Your task to perform on an android device: install app "Etsy: Buy & Sell Unique Items" Image 0: 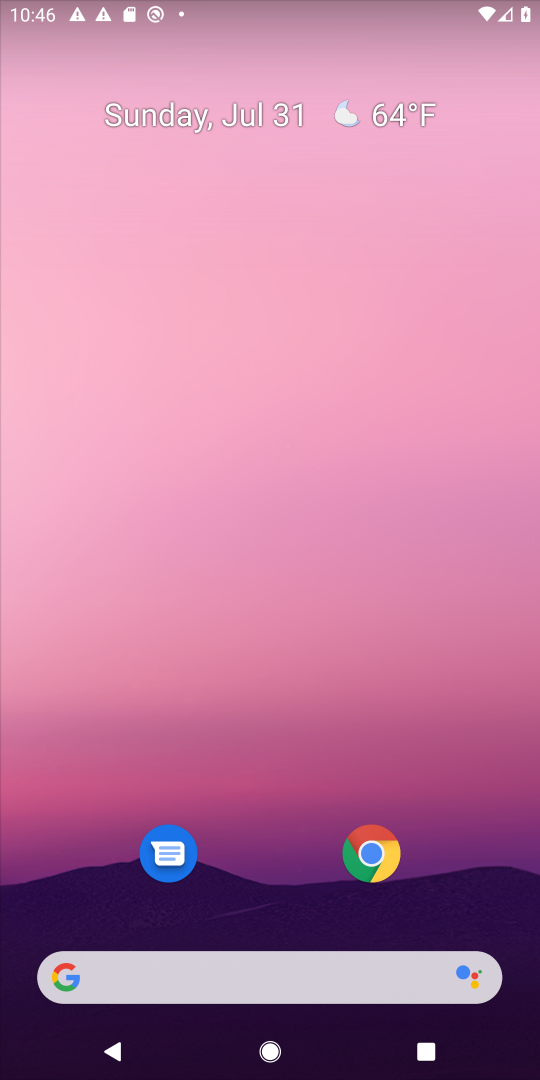
Step 0: drag from (299, 1068) to (315, 130)
Your task to perform on an android device: install app "Etsy: Buy & Sell Unique Items" Image 1: 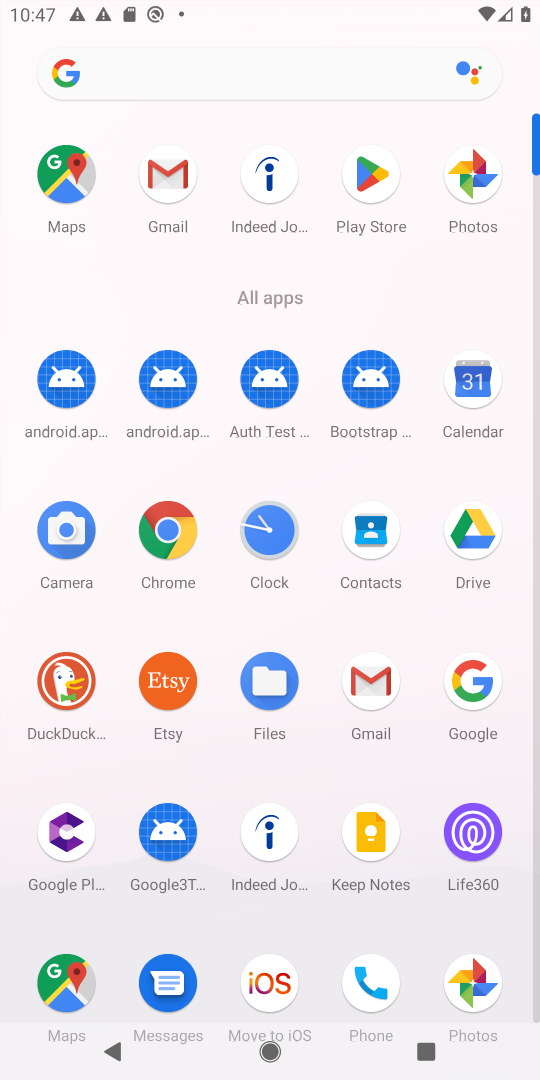
Step 1: drag from (195, 882) to (185, 532)
Your task to perform on an android device: install app "Etsy: Buy & Sell Unique Items" Image 2: 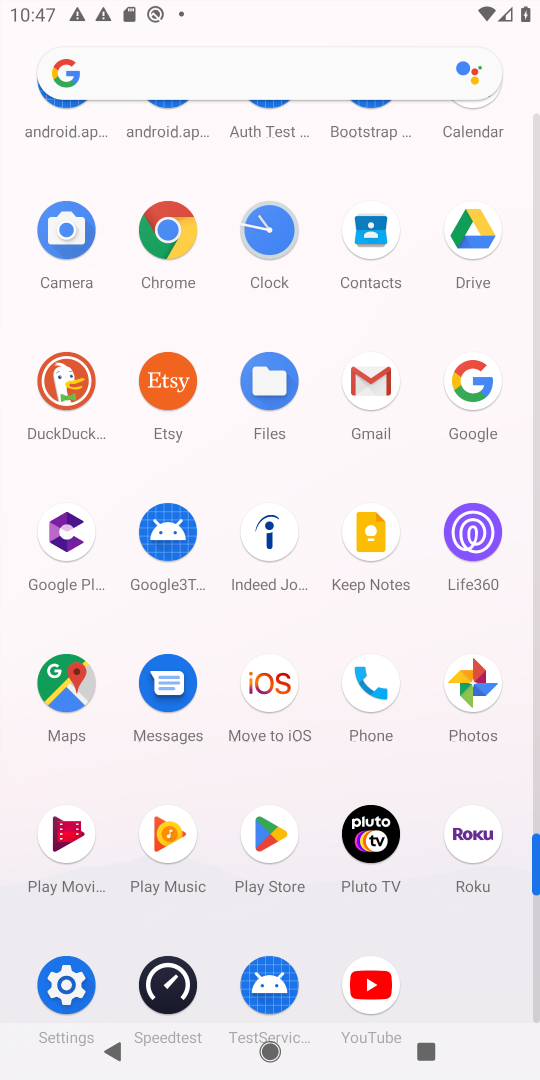
Step 2: drag from (299, 325) to (352, 725)
Your task to perform on an android device: install app "Etsy: Buy & Sell Unique Items" Image 3: 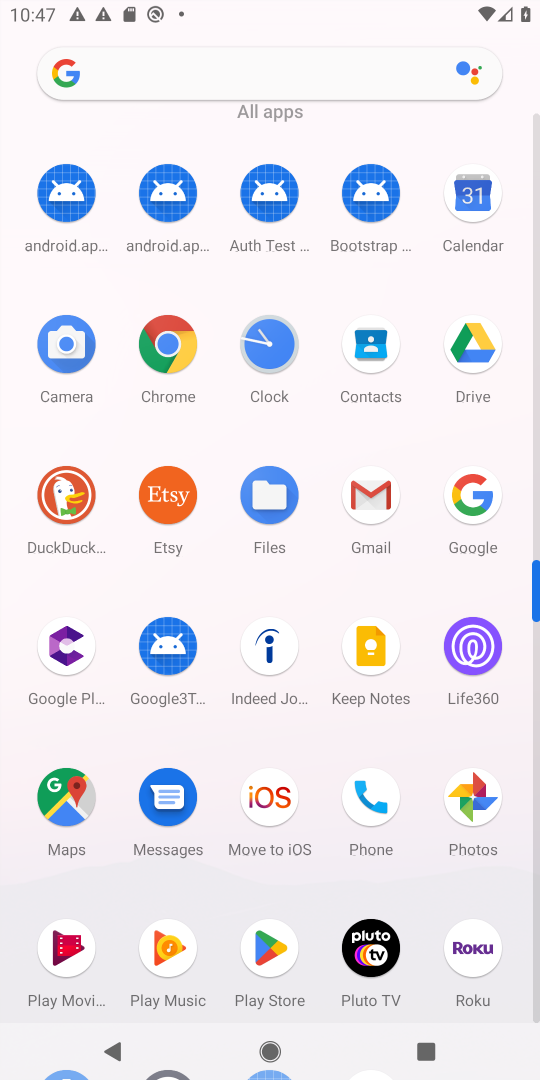
Step 3: click (266, 947)
Your task to perform on an android device: install app "Etsy: Buy & Sell Unique Items" Image 4: 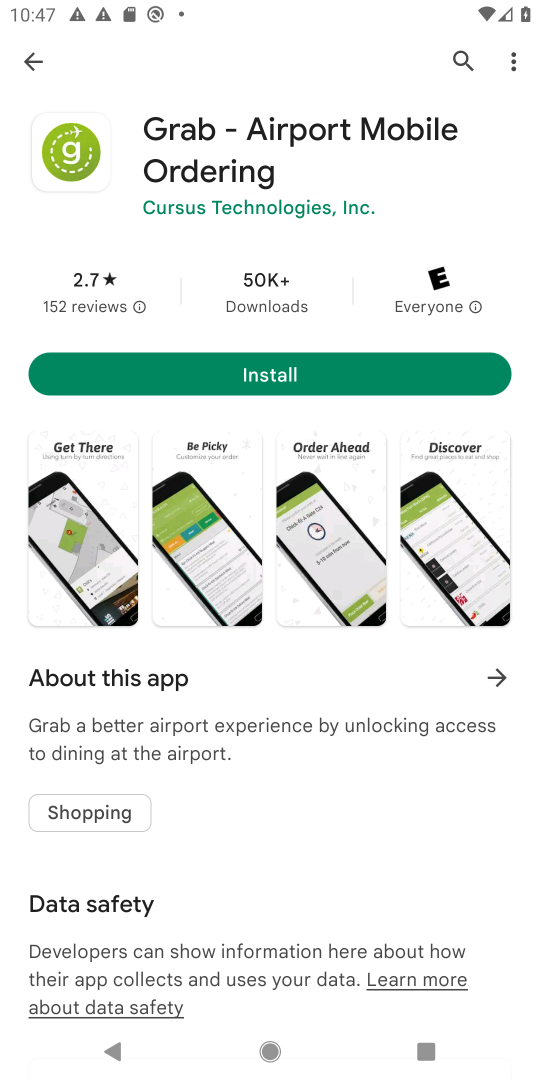
Step 4: click (460, 48)
Your task to perform on an android device: install app "Etsy: Buy & Sell Unique Items" Image 5: 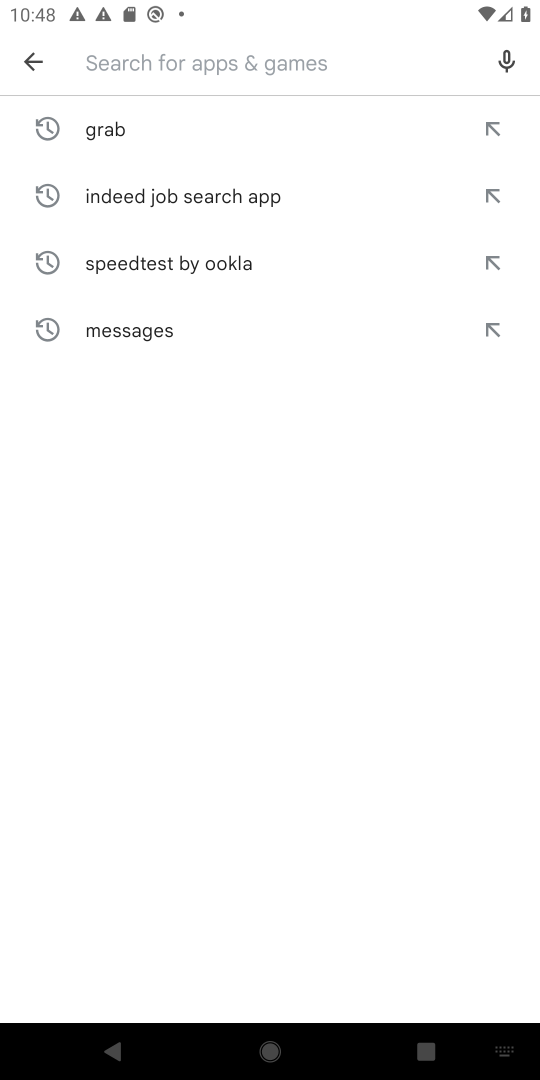
Step 5: type "Etsy: Buy & Sell Unique Items"
Your task to perform on an android device: install app "Etsy: Buy & Sell Unique Items" Image 6: 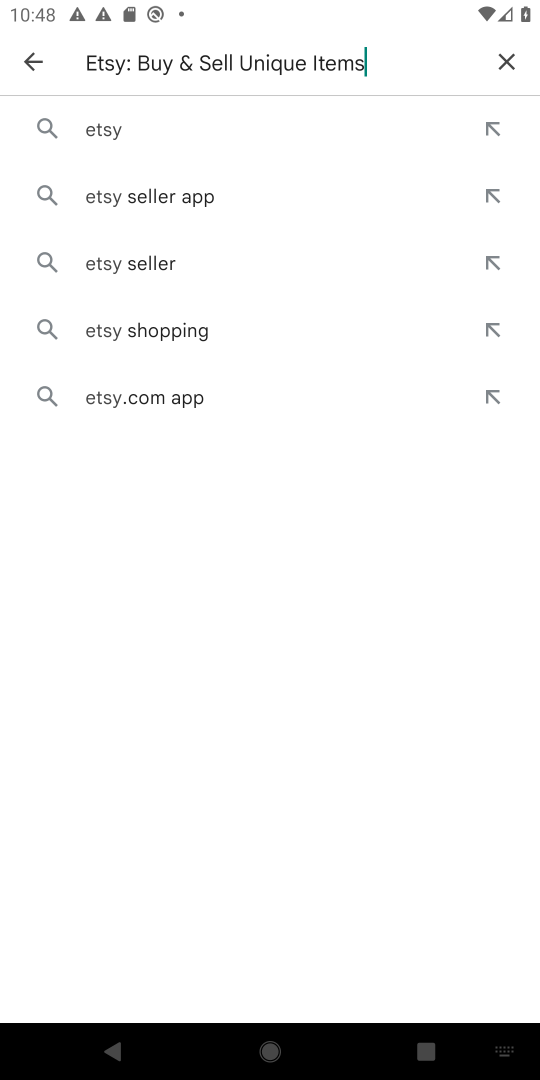
Step 6: type ""
Your task to perform on an android device: install app "Etsy: Buy & Sell Unique Items" Image 7: 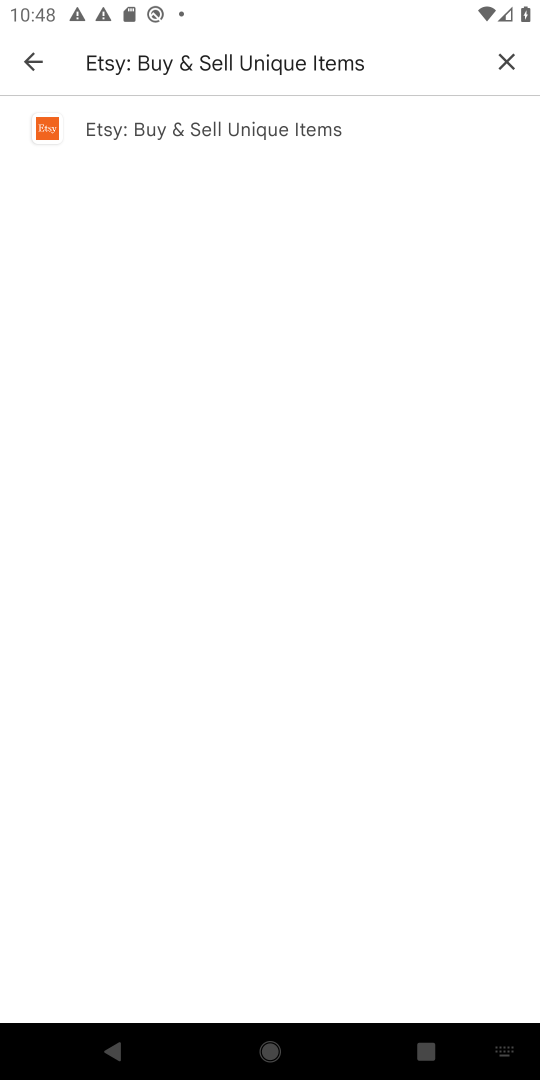
Step 7: click (289, 129)
Your task to perform on an android device: install app "Etsy: Buy & Sell Unique Items" Image 8: 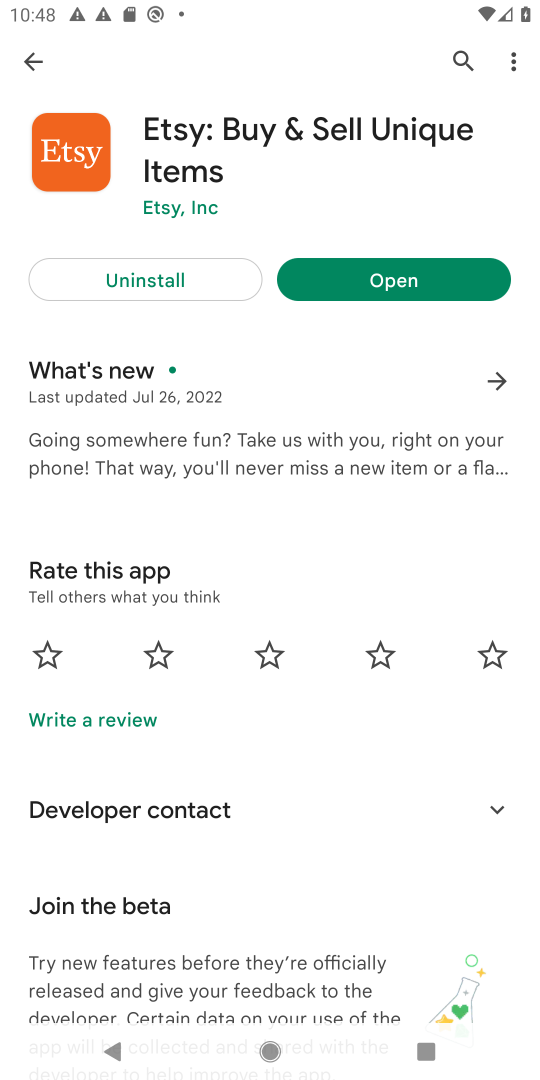
Step 8: task complete